Your task to perform on an android device: turn on javascript in the chrome app Image 0: 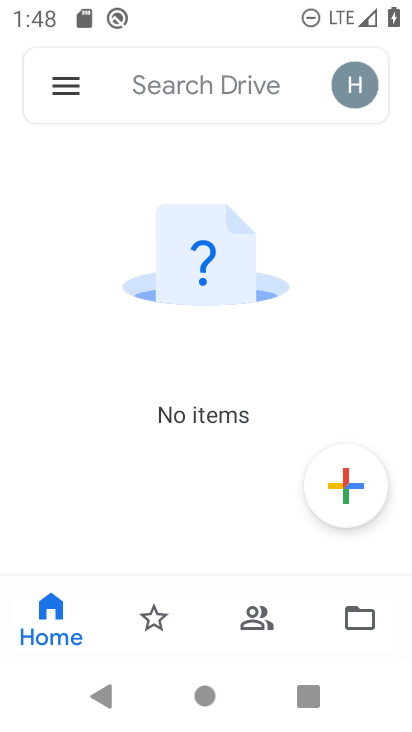
Step 0: press home button
Your task to perform on an android device: turn on javascript in the chrome app Image 1: 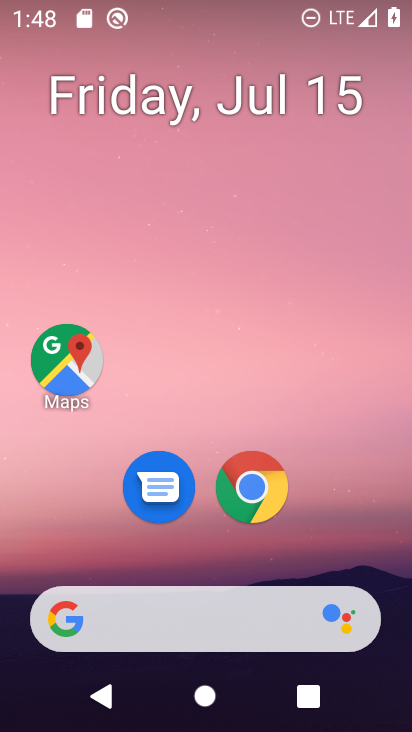
Step 1: drag from (252, 593) to (257, 244)
Your task to perform on an android device: turn on javascript in the chrome app Image 2: 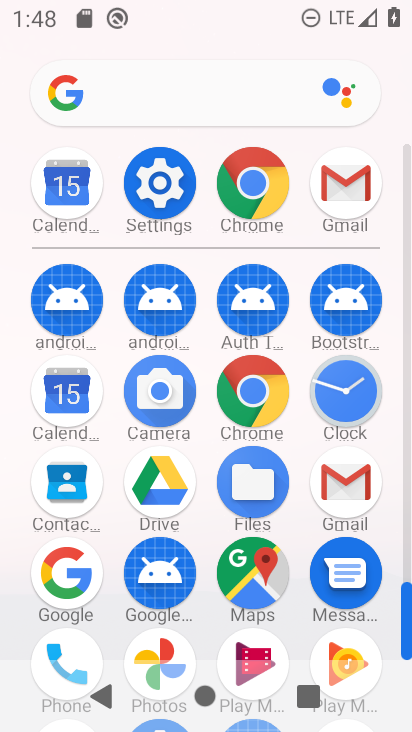
Step 2: click (241, 204)
Your task to perform on an android device: turn on javascript in the chrome app Image 3: 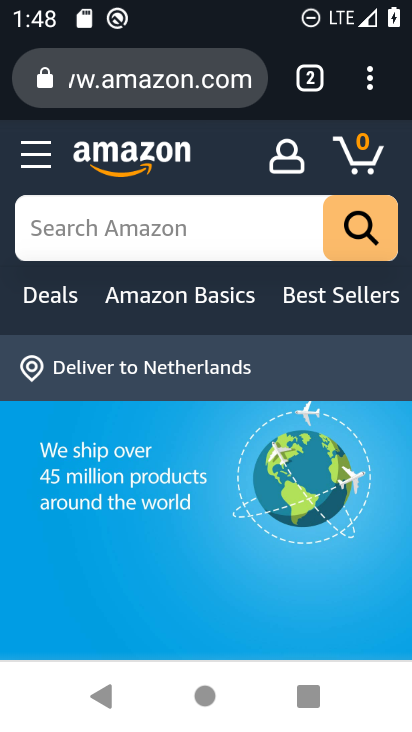
Step 3: click (371, 85)
Your task to perform on an android device: turn on javascript in the chrome app Image 4: 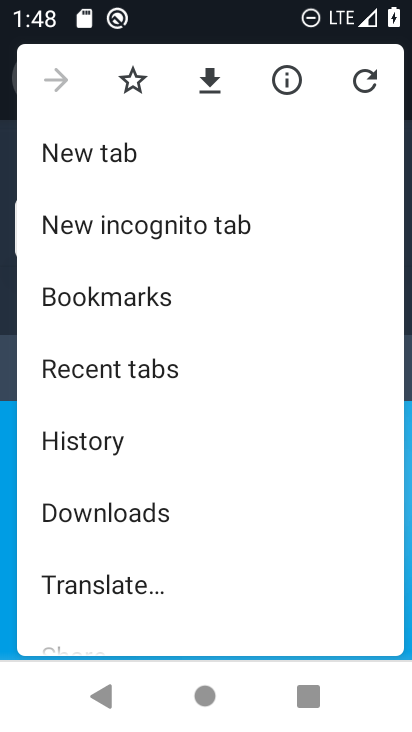
Step 4: drag from (110, 540) to (114, 311)
Your task to perform on an android device: turn on javascript in the chrome app Image 5: 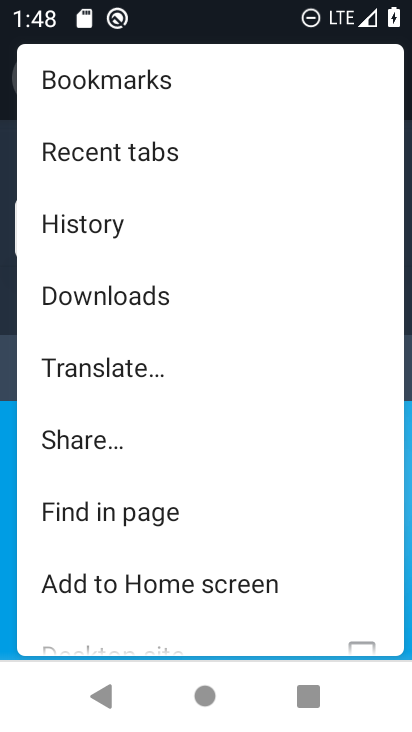
Step 5: drag from (81, 542) to (89, 292)
Your task to perform on an android device: turn on javascript in the chrome app Image 6: 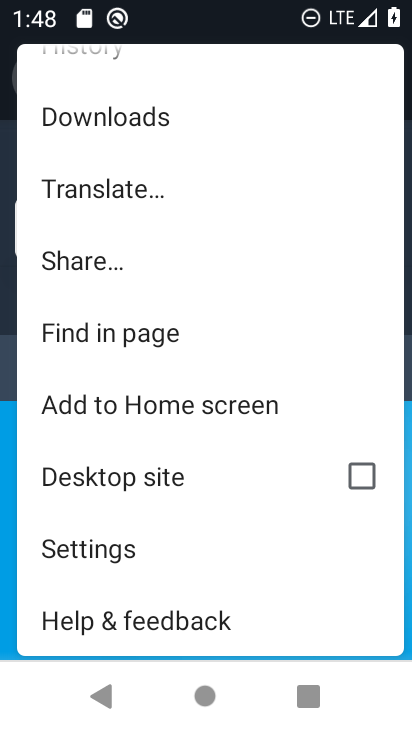
Step 6: click (108, 554)
Your task to perform on an android device: turn on javascript in the chrome app Image 7: 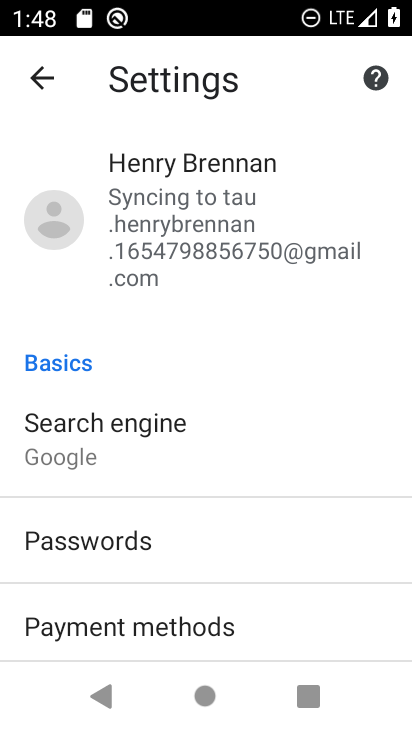
Step 7: drag from (103, 549) to (77, 308)
Your task to perform on an android device: turn on javascript in the chrome app Image 8: 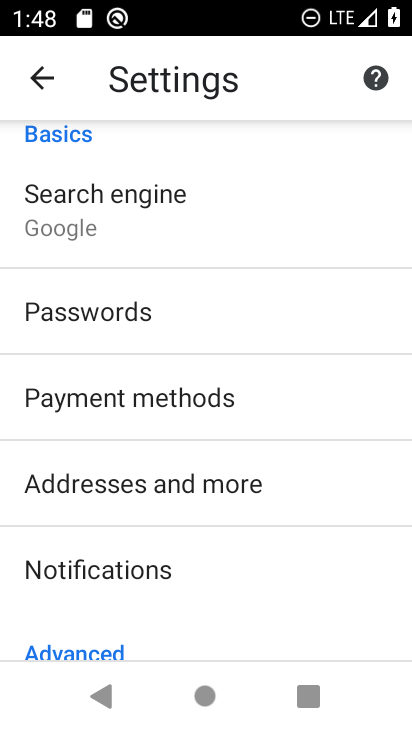
Step 8: drag from (202, 439) to (211, 296)
Your task to perform on an android device: turn on javascript in the chrome app Image 9: 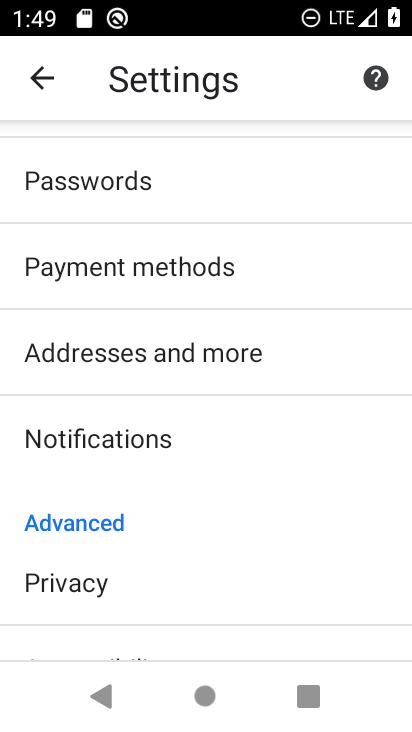
Step 9: drag from (147, 486) to (170, 217)
Your task to perform on an android device: turn on javascript in the chrome app Image 10: 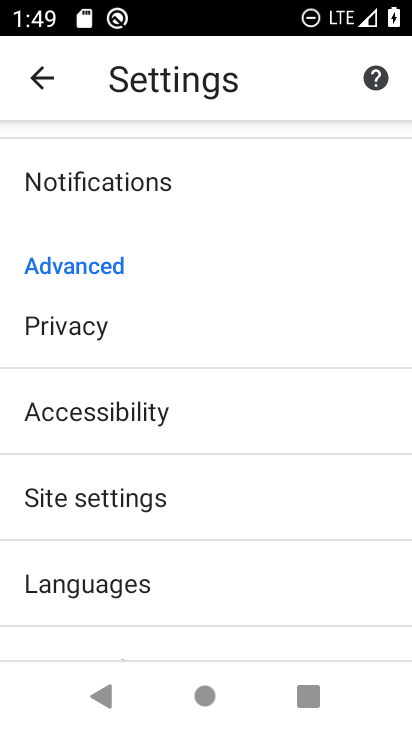
Step 10: click (117, 521)
Your task to perform on an android device: turn on javascript in the chrome app Image 11: 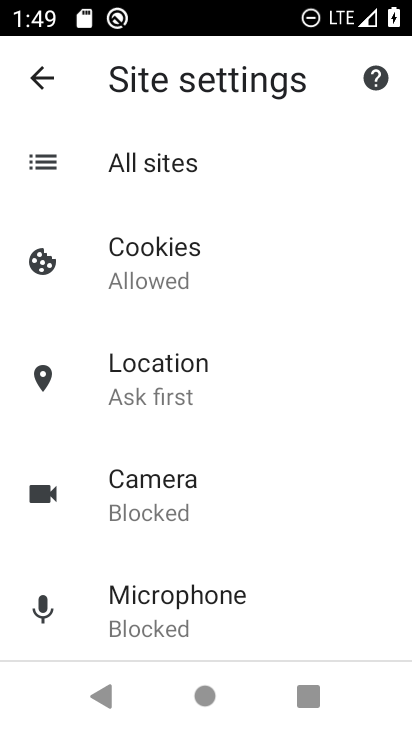
Step 11: drag from (116, 527) to (104, 224)
Your task to perform on an android device: turn on javascript in the chrome app Image 12: 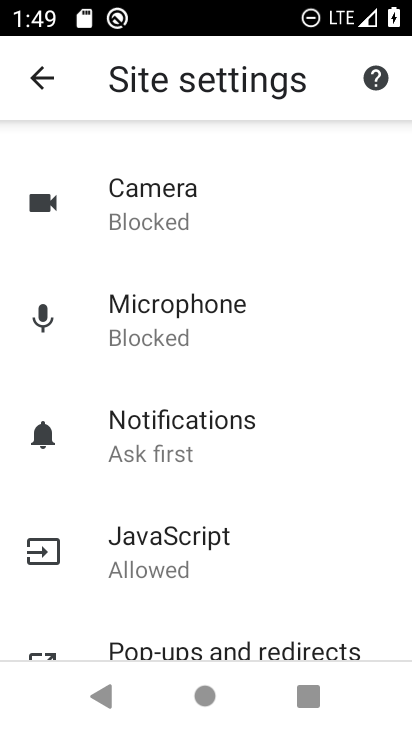
Step 12: click (260, 555)
Your task to perform on an android device: turn on javascript in the chrome app Image 13: 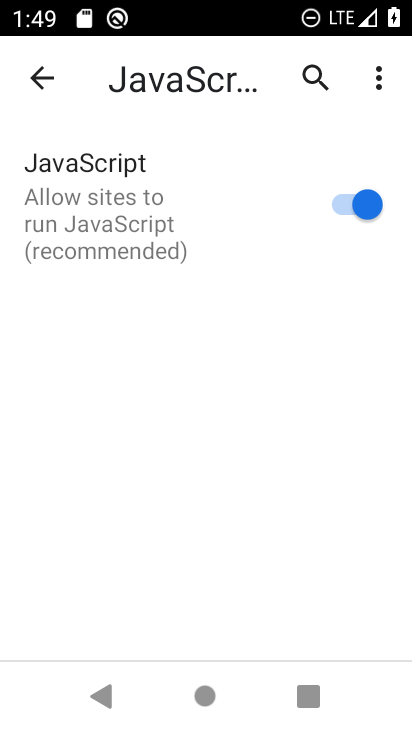
Step 13: task complete